Your task to perform on an android device: turn on priority inbox in the gmail app Image 0: 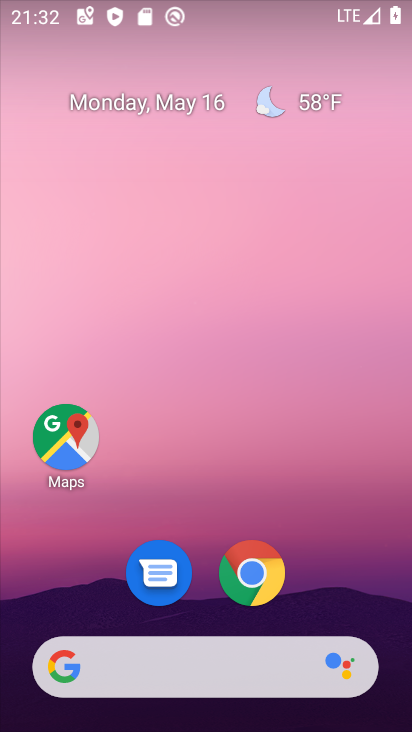
Step 0: drag from (210, 730) to (238, 233)
Your task to perform on an android device: turn on priority inbox in the gmail app Image 1: 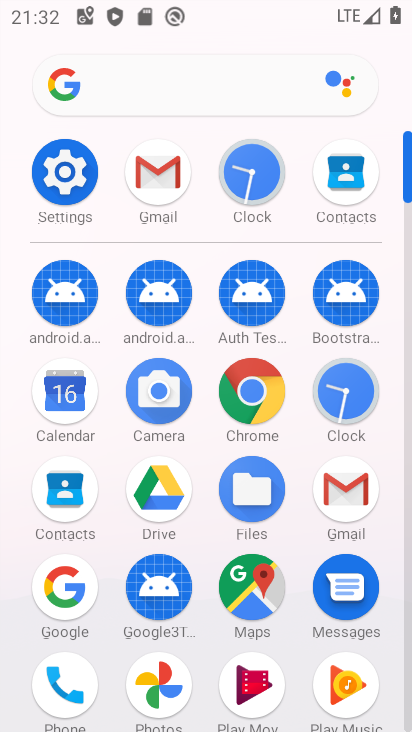
Step 1: click (346, 474)
Your task to perform on an android device: turn on priority inbox in the gmail app Image 2: 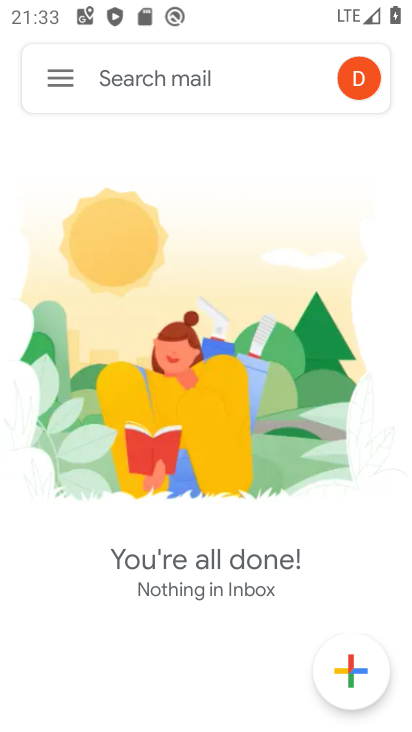
Step 2: click (50, 75)
Your task to perform on an android device: turn on priority inbox in the gmail app Image 3: 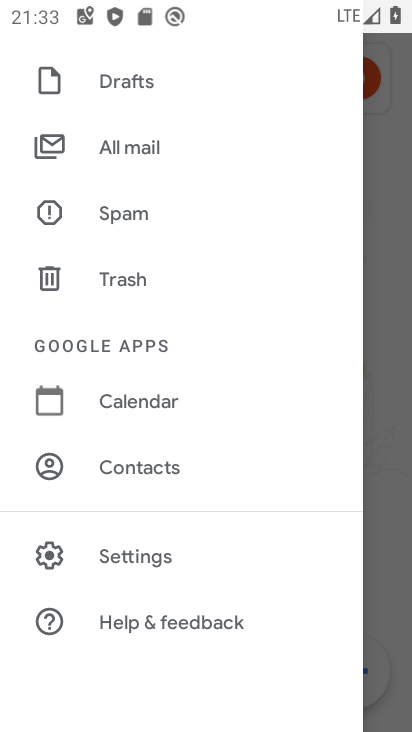
Step 3: click (149, 551)
Your task to perform on an android device: turn on priority inbox in the gmail app Image 4: 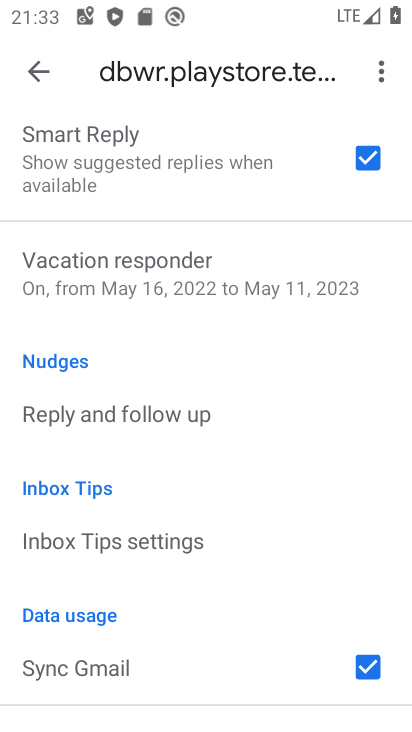
Step 4: task complete